Your task to perform on an android device: open the mobile data screen to see how much data has been used Image 0: 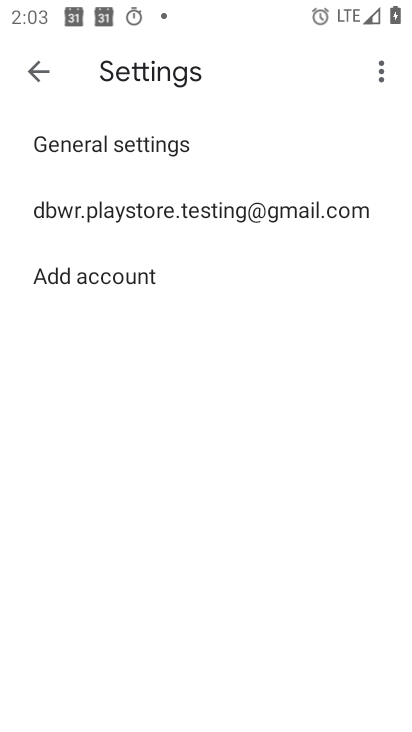
Step 0: press home button
Your task to perform on an android device: open the mobile data screen to see how much data has been used Image 1: 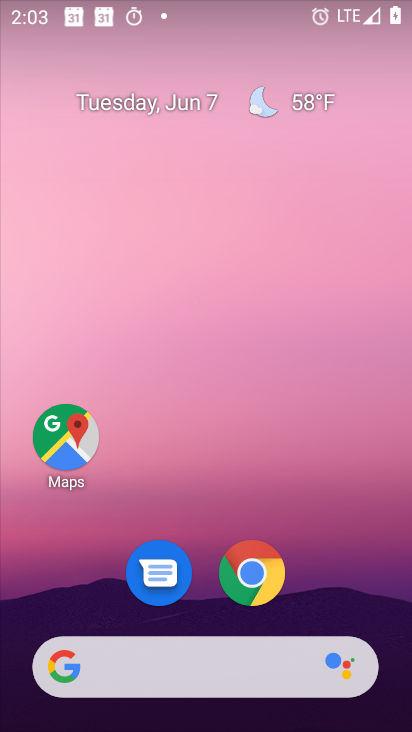
Step 1: drag from (310, 592) to (294, 106)
Your task to perform on an android device: open the mobile data screen to see how much data has been used Image 2: 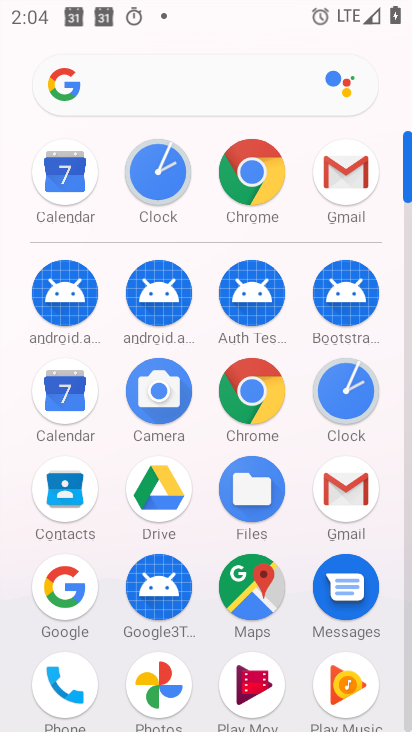
Step 2: drag from (217, 6) to (272, 703)
Your task to perform on an android device: open the mobile data screen to see how much data has been used Image 3: 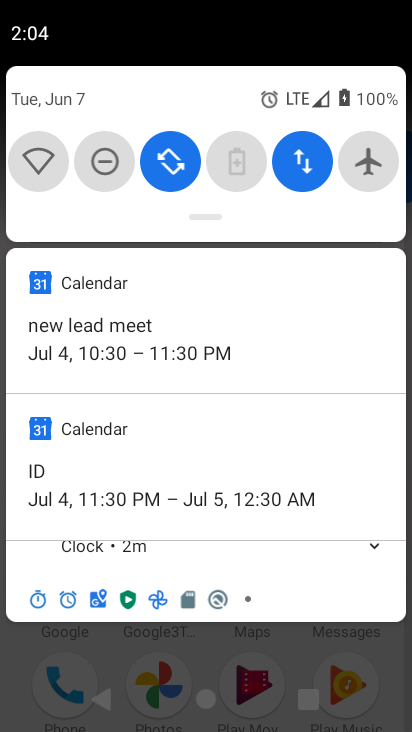
Step 3: click (292, 160)
Your task to perform on an android device: open the mobile data screen to see how much data has been used Image 4: 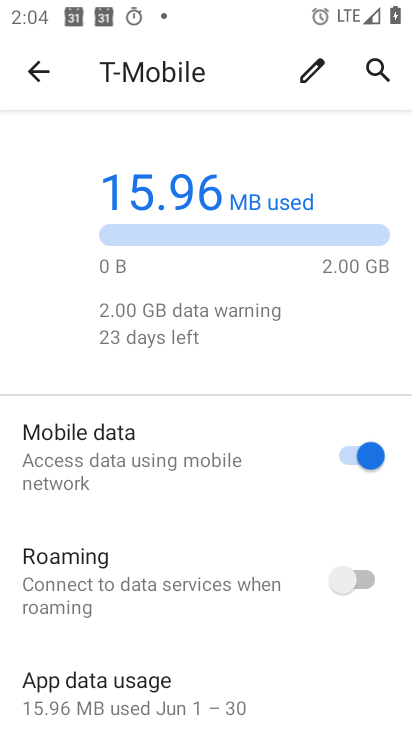
Step 4: task complete